Your task to perform on an android device: Open calendar and show me the fourth week of next month Image 0: 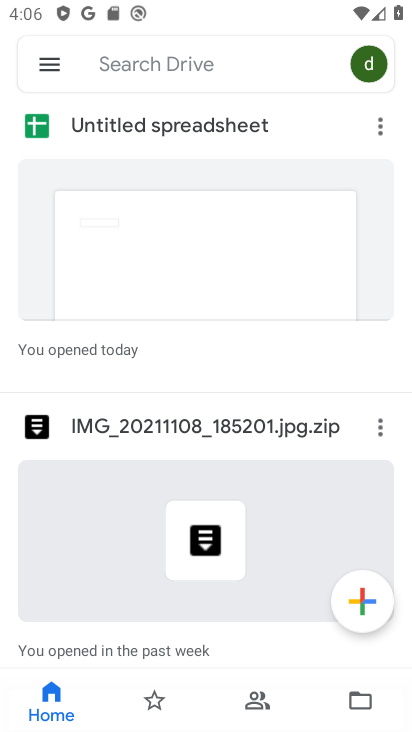
Step 0: press home button
Your task to perform on an android device: Open calendar and show me the fourth week of next month Image 1: 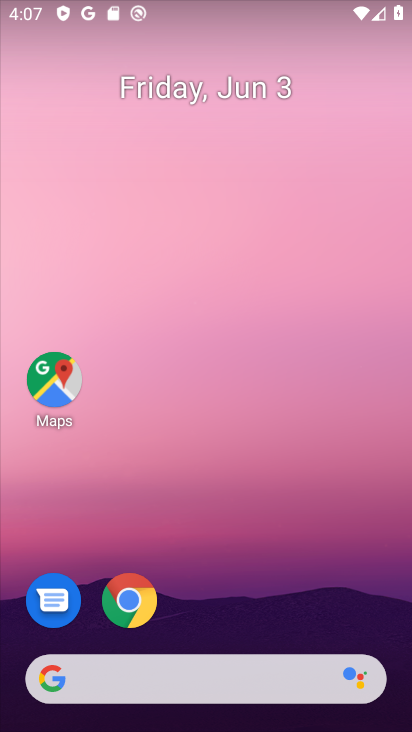
Step 1: drag from (410, 663) to (296, 63)
Your task to perform on an android device: Open calendar and show me the fourth week of next month Image 2: 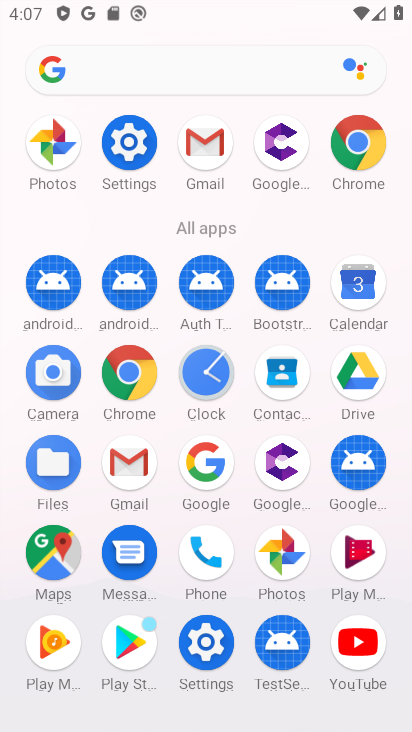
Step 2: click (341, 294)
Your task to perform on an android device: Open calendar and show me the fourth week of next month Image 3: 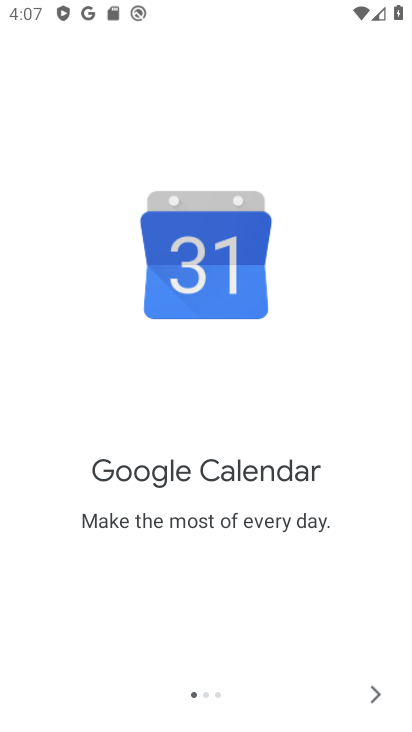
Step 3: click (370, 693)
Your task to perform on an android device: Open calendar and show me the fourth week of next month Image 4: 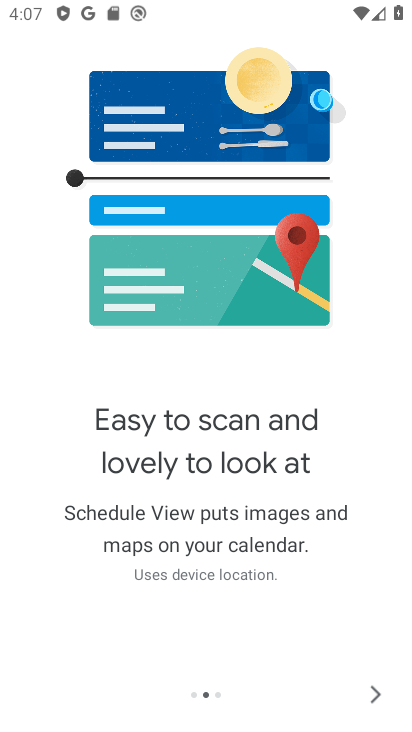
Step 4: click (370, 693)
Your task to perform on an android device: Open calendar and show me the fourth week of next month Image 5: 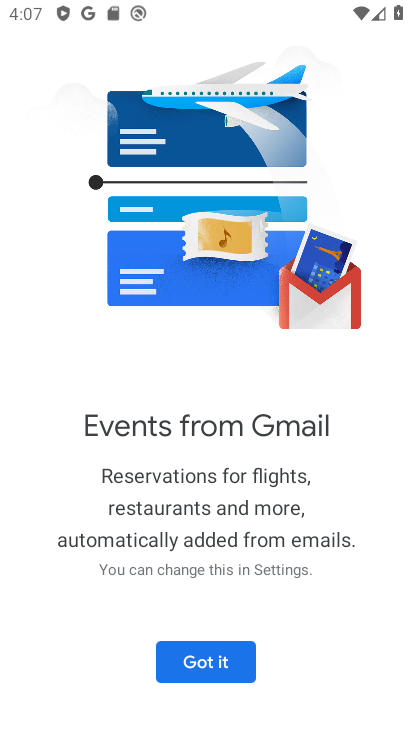
Step 5: click (218, 663)
Your task to perform on an android device: Open calendar and show me the fourth week of next month Image 6: 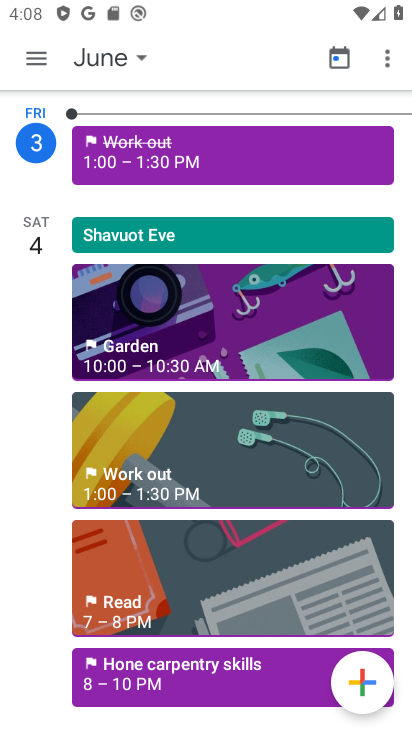
Step 6: click (136, 53)
Your task to perform on an android device: Open calendar and show me the fourth week of next month Image 7: 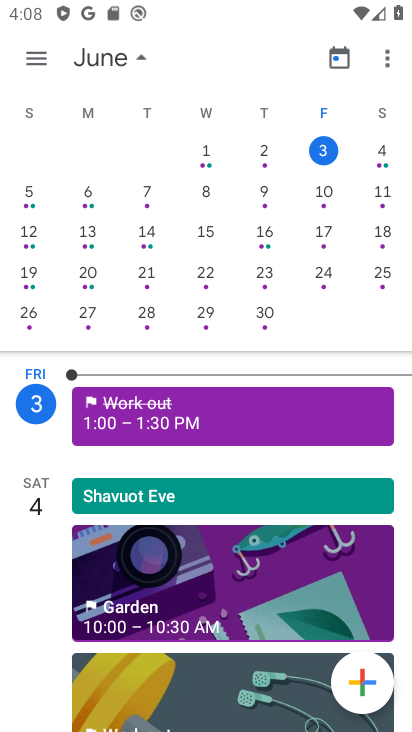
Step 7: drag from (401, 218) to (55, 221)
Your task to perform on an android device: Open calendar and show me the fourth week of next month Image 8: 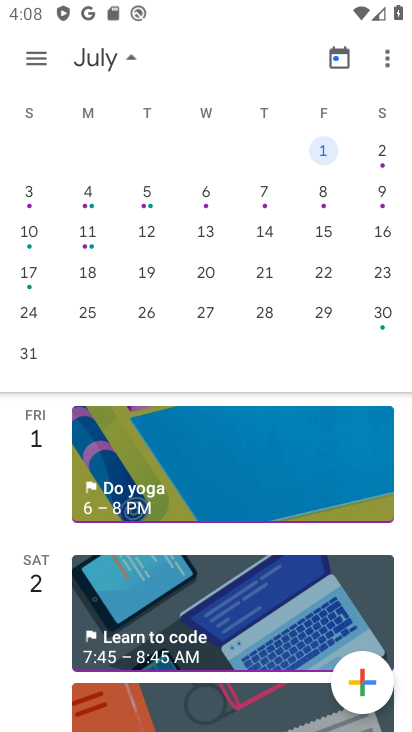
Step 8: click (255, 275)
Your task to perform on an android device: Open calendar and show me the fourth week of next month Image 9: 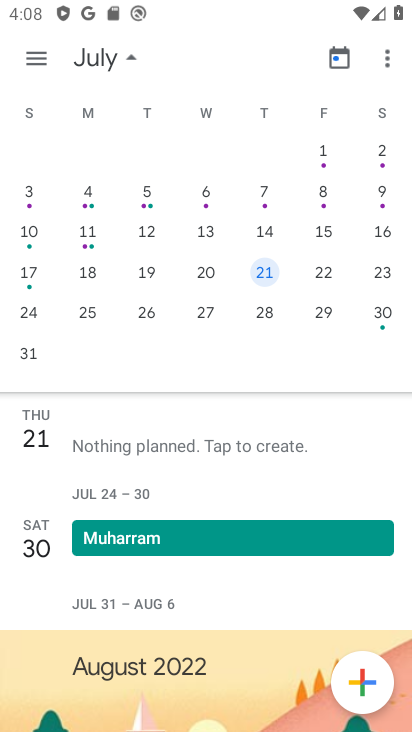
Step 9: task complete